Your task to perform on an android device: Clear all items from cart on target. Image 0: 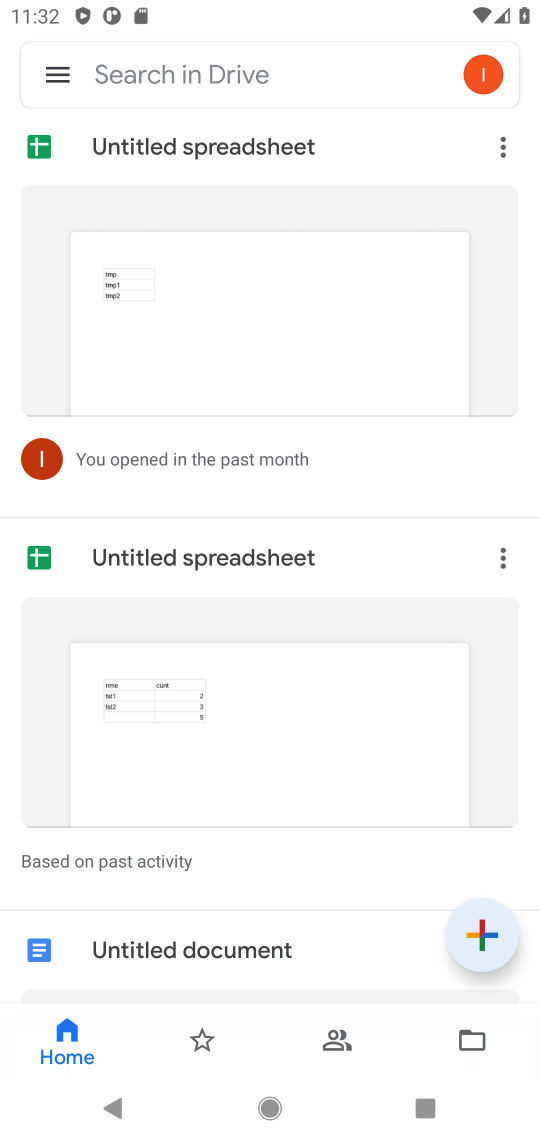
Step 0: press home button
Your task to perform on an android device: Clear all items from cart on target. Image 1: 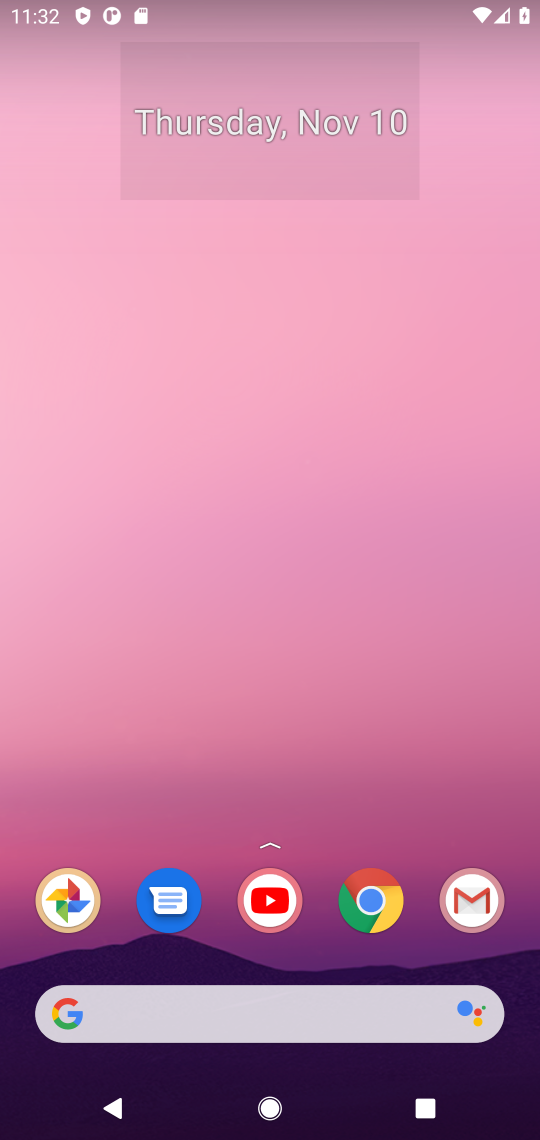
Step 1: click (377, 900)
Your task to perform on an android device: Clear all items from cart on target. Image 2: 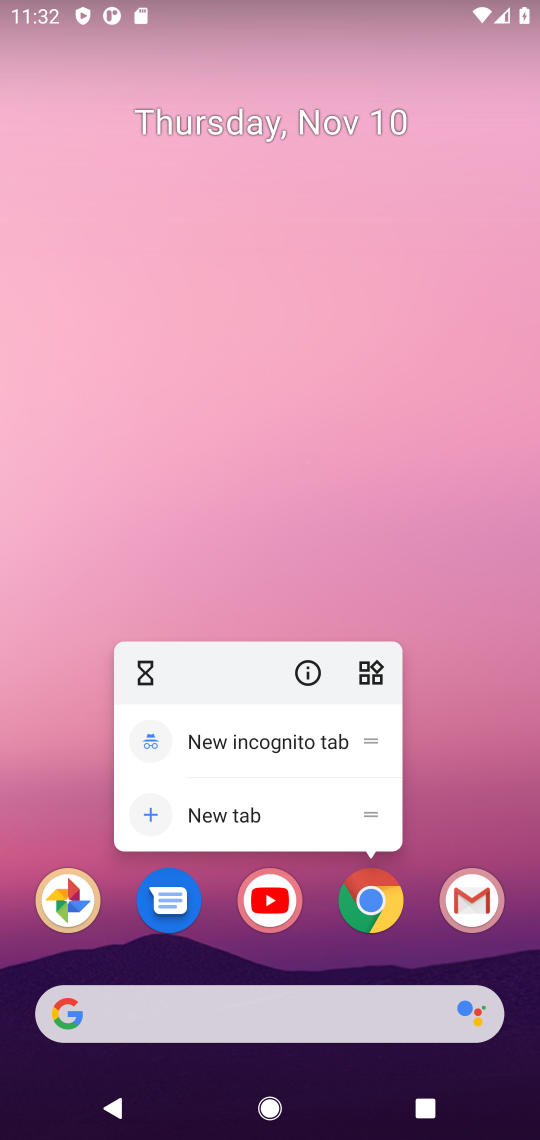
Step 2: click (377, 900)
Your task to perform on an android device: Clear all items from cart on target. Image 3: 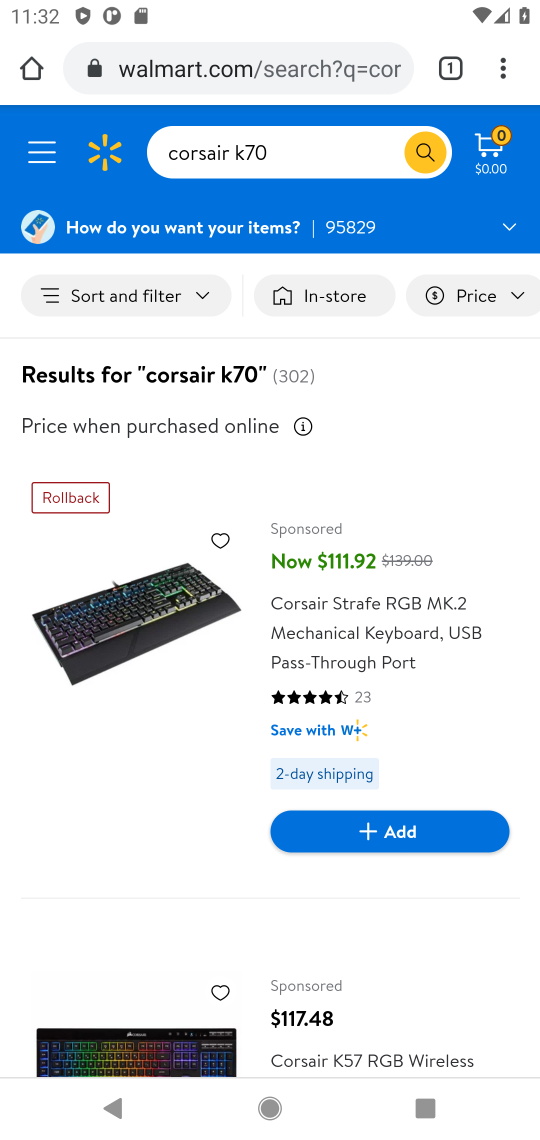
Step 3: click (271, 64)
Your task to perform on an android device: Clear all items from cart on target. Image 4: 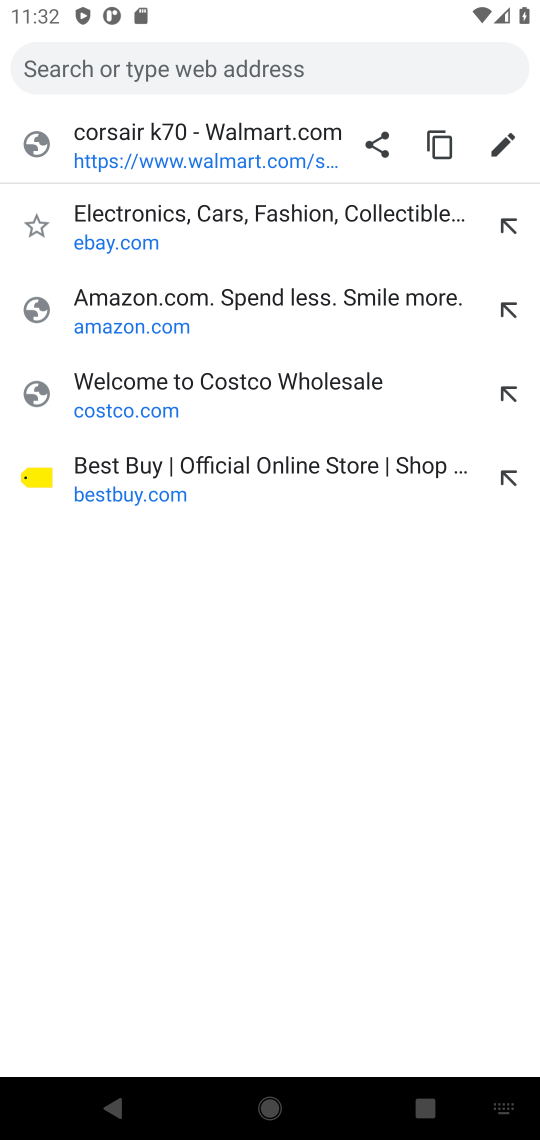
Step 4: type " target"
Your task to perform on an android device: Clear all items from cart on target. Image 5: 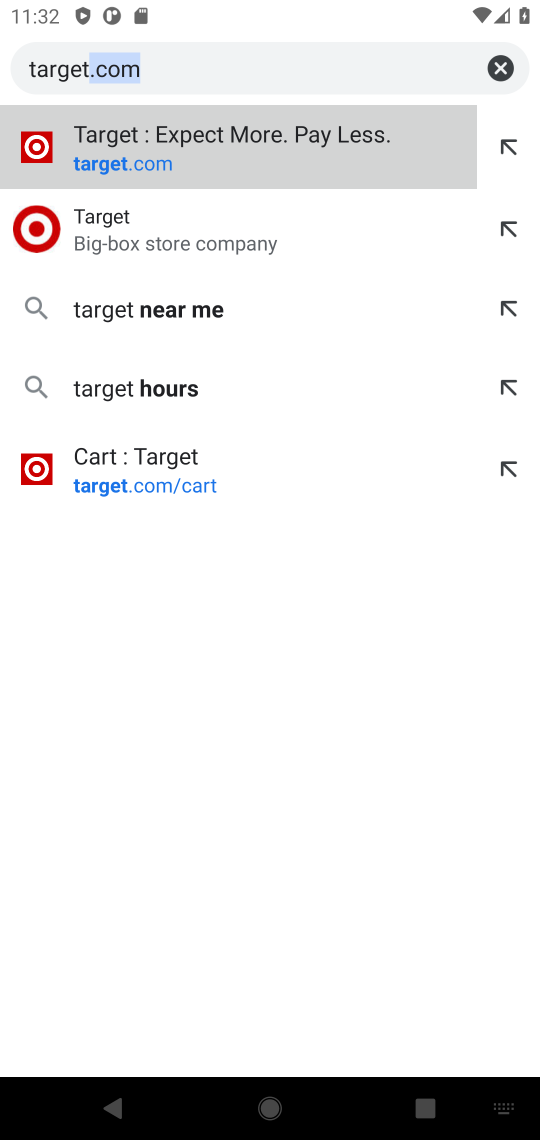
Step 5: press enter
Your task to perform on an android device: Clear all items from cart on target. Image 6: 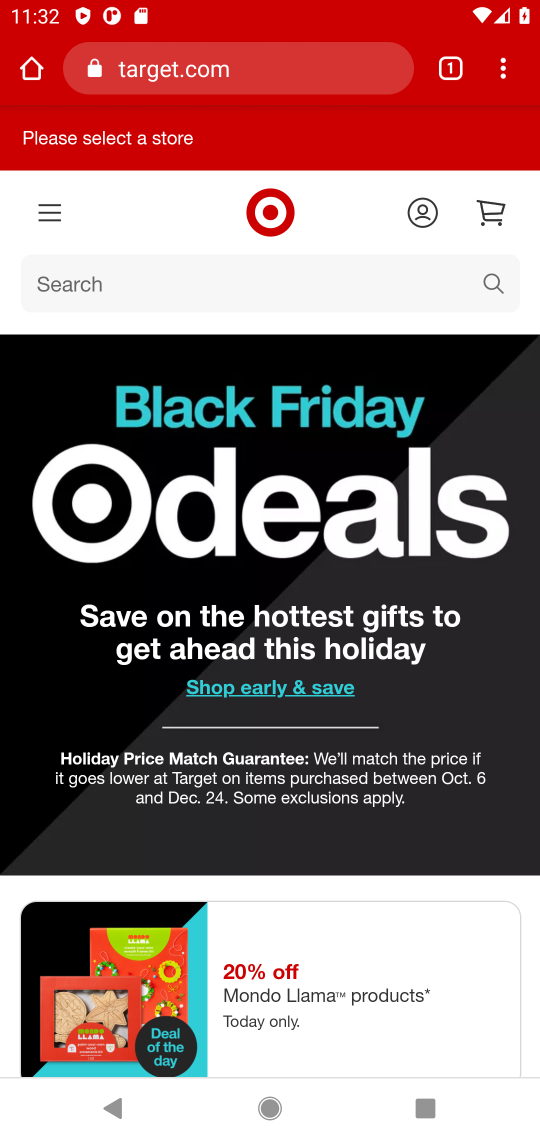
Step 6: click (492, 205)
Your task to perform on an android device: Clear all items from cart on target. Image 7: 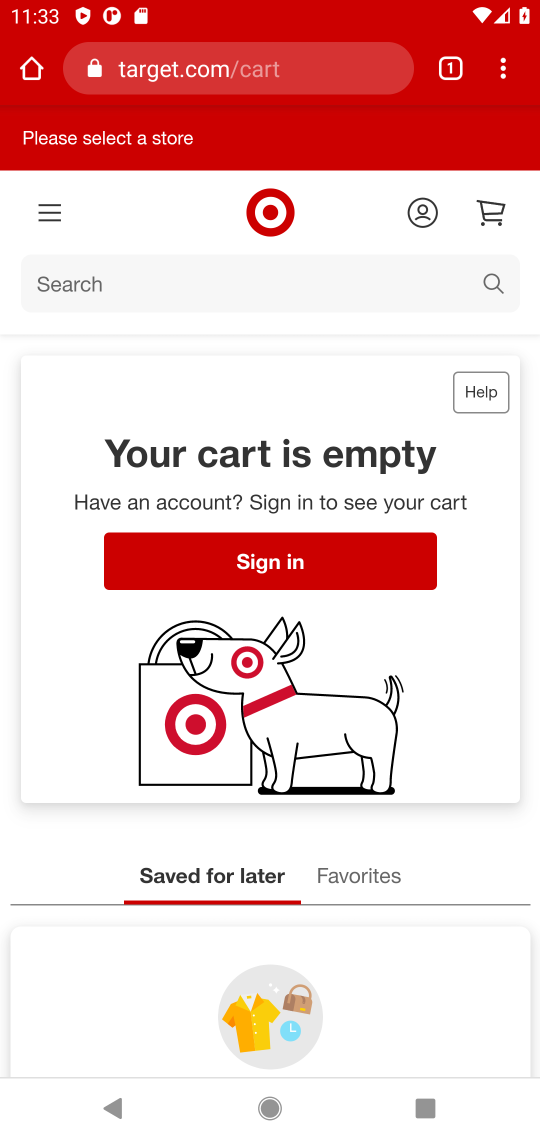
Step 7: task complete